Your task to perform on an android device: open app "Contacts" (install if not already installed) Image 0: 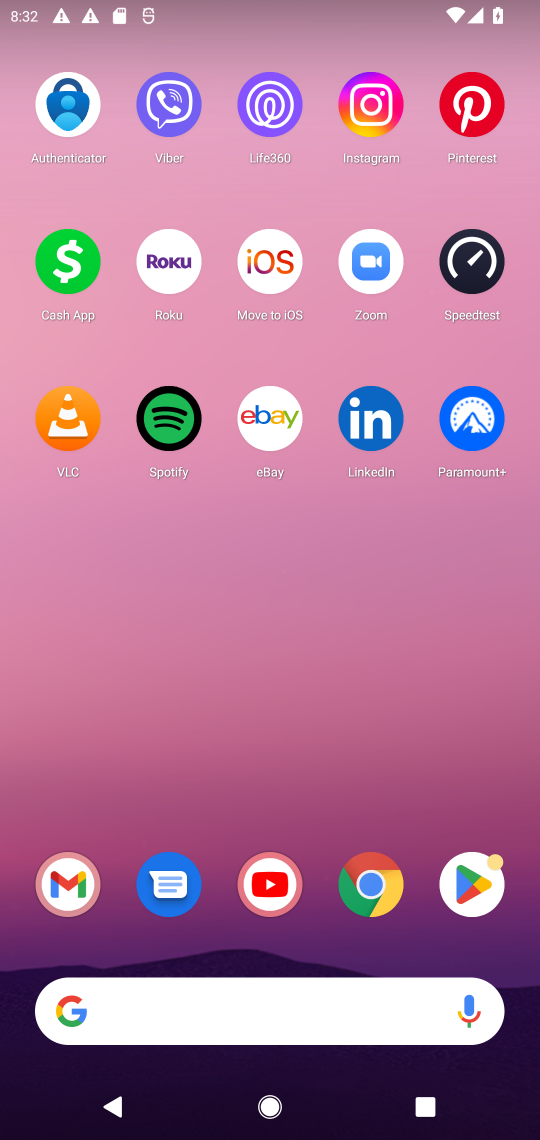
Step 0: press home button
Your task to perform on an android device: open app "Contacts" (install if not already installed) Image 1: 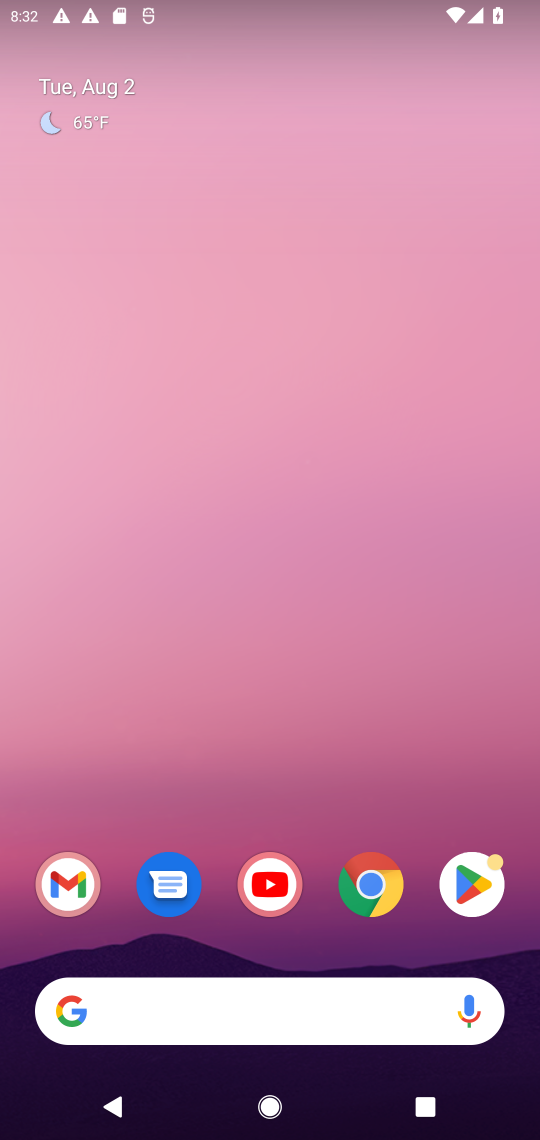
Step 1: click (455, 891)
Your task to perform on an android device: open app "Contacts" (install if not already installed) Image 2: 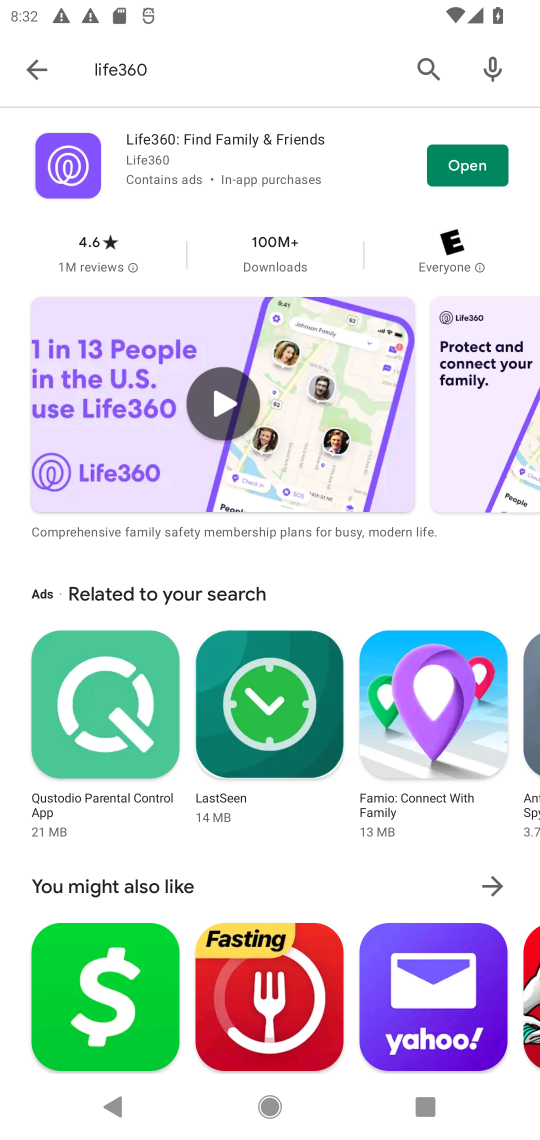
Step 2: click (427, 66)
Your task to perform on an android device: open app "Contacts" (install if not already installed) Image 3: 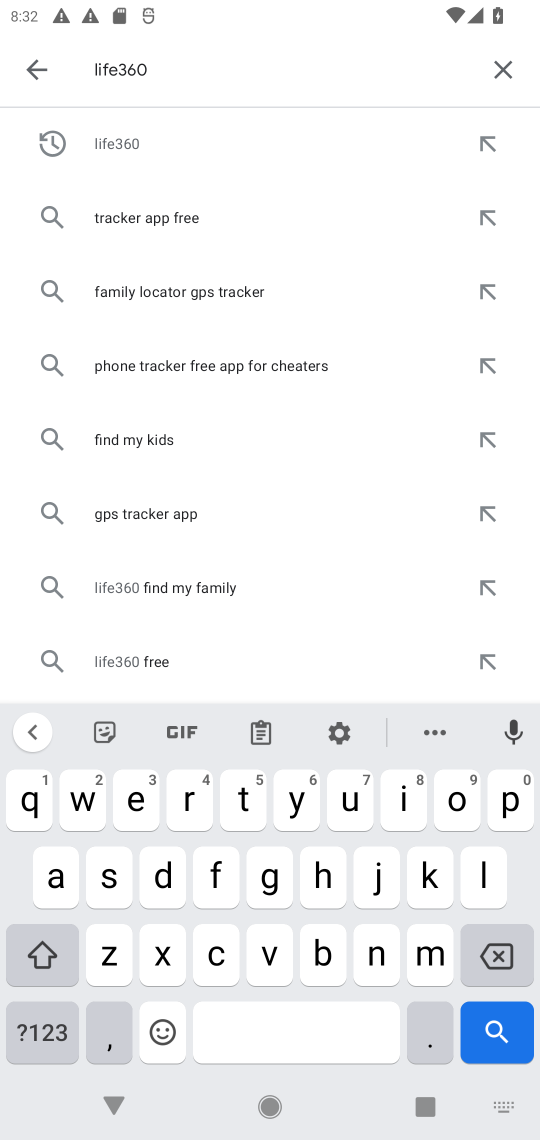
Step 3: click (500, 66)
Your task to perform on an android device: open app "Contacts" (install if not already installed) Image 4: 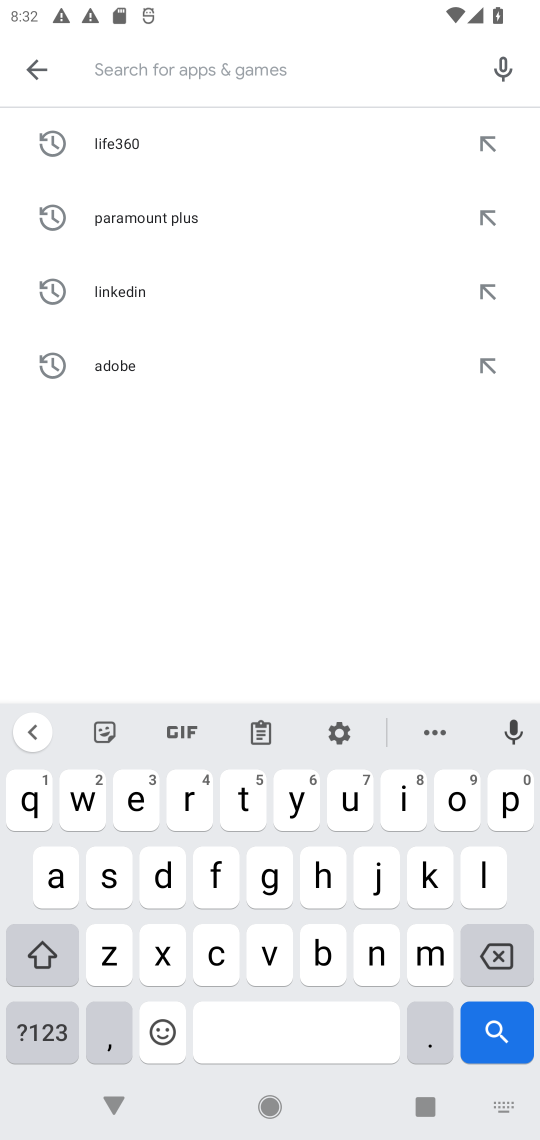
Step 4: click (218, 947)
Your task to perform on an android device: open app "Contacts" (install if not already installed) Image 5: 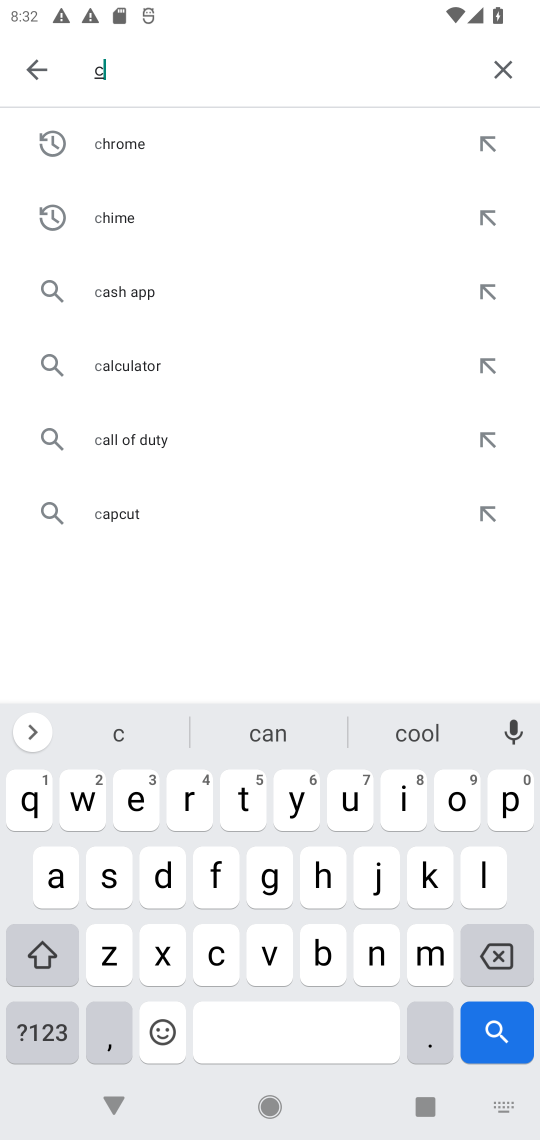
Step 5: click (458, 793)
Your task to perform on an android device: open app "Contacts" (install if not already installed) Image 6: 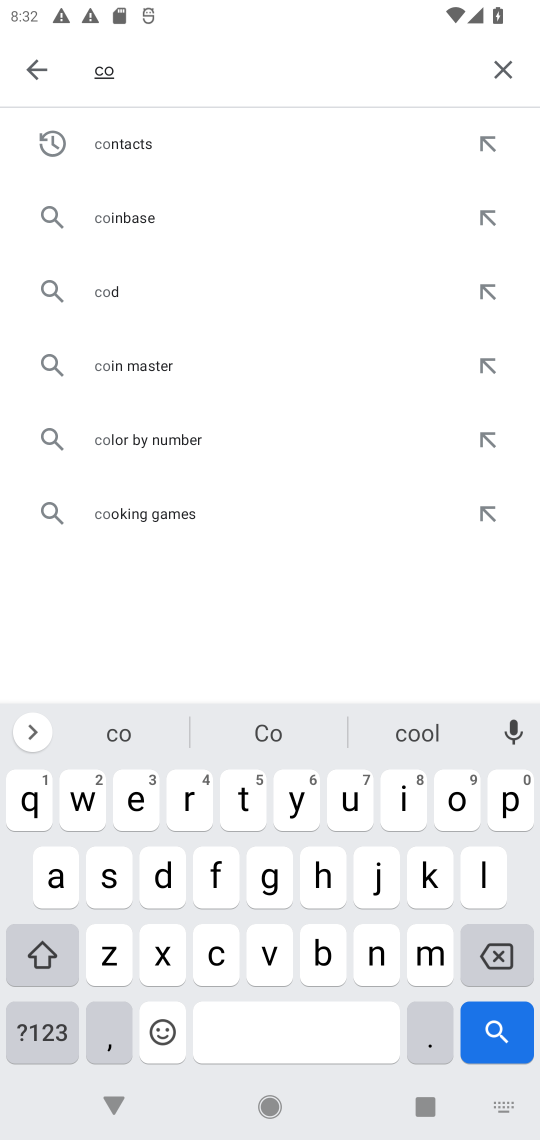
Step 6: click (373, 960)
Your task to perform on an android device: open app "Contacts" (install if not already installed) Image 7: 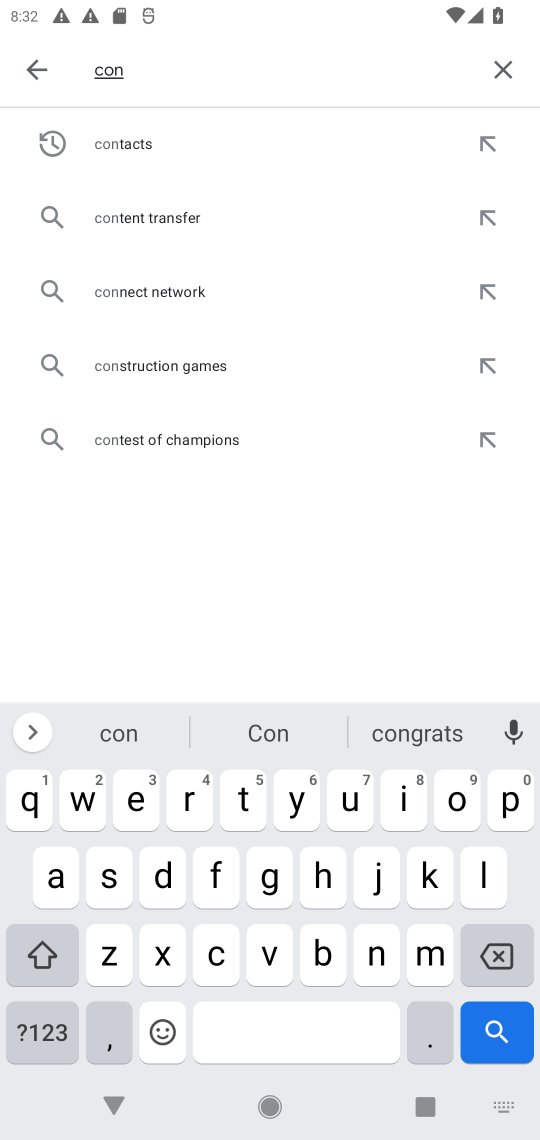
Step 7: click (242, 800)
Your task to perform on an android device: open app "Contacts" (install if not already installed) Image 8: 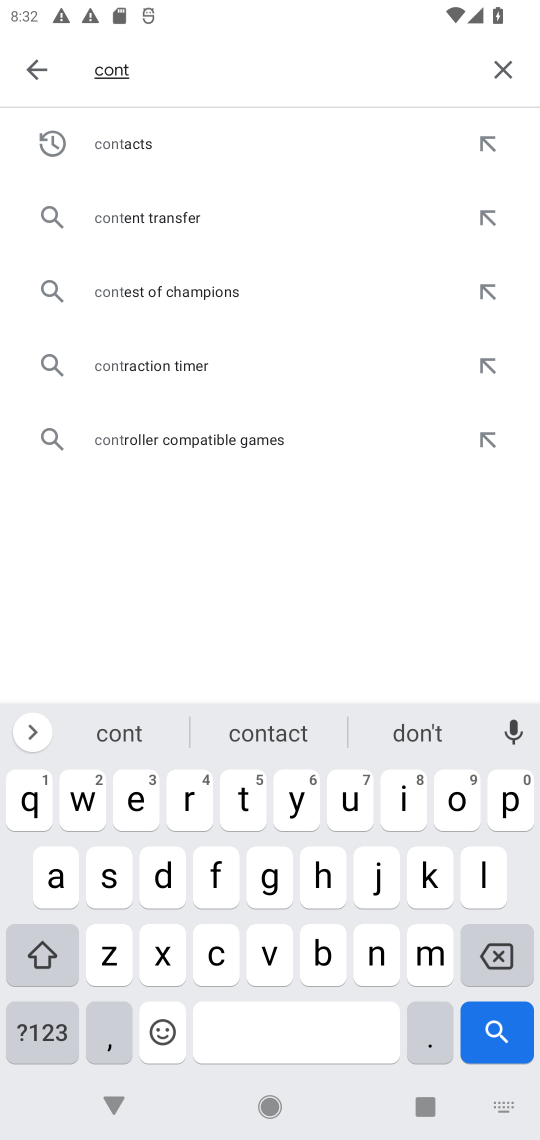
Step 8: click (156, 146)
Your task to perform on an android device: open app "Contacts" (install if not already installed) Image 9: 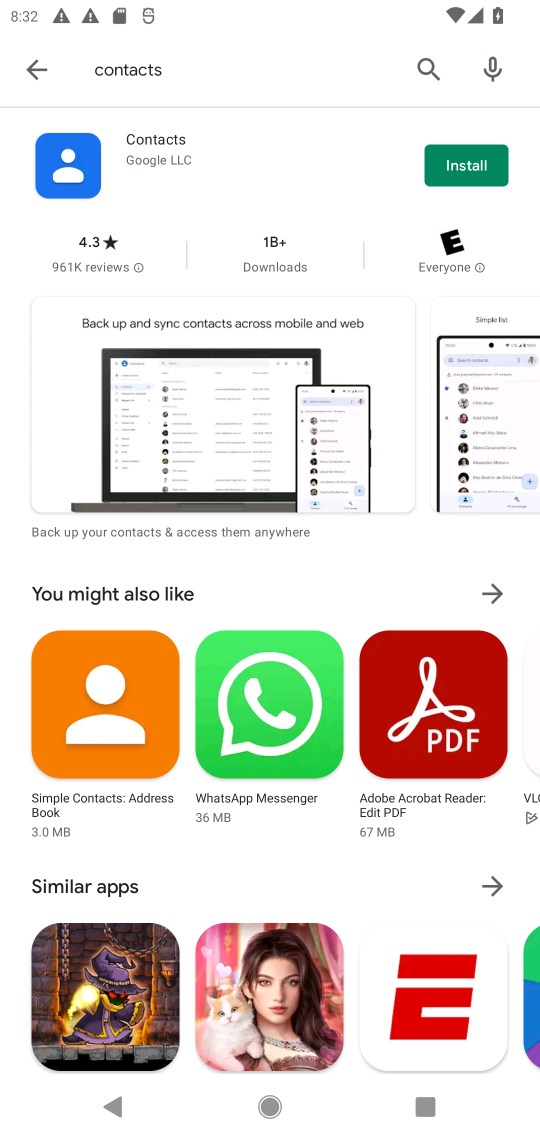
Step 9: click (459, 175)
Your task to perform on an android device: open app "Contacts" (install if not already installed) Image 10: 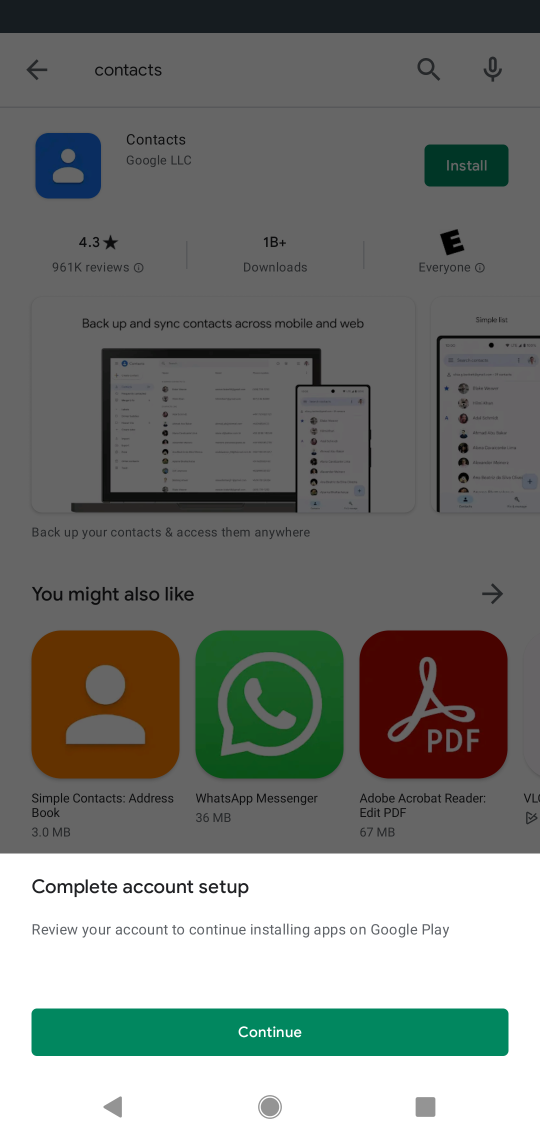
Step 10: click (236, 1043)
Your task to perform on an android device: open app "Contacts" (install if not already installed) Image 11: 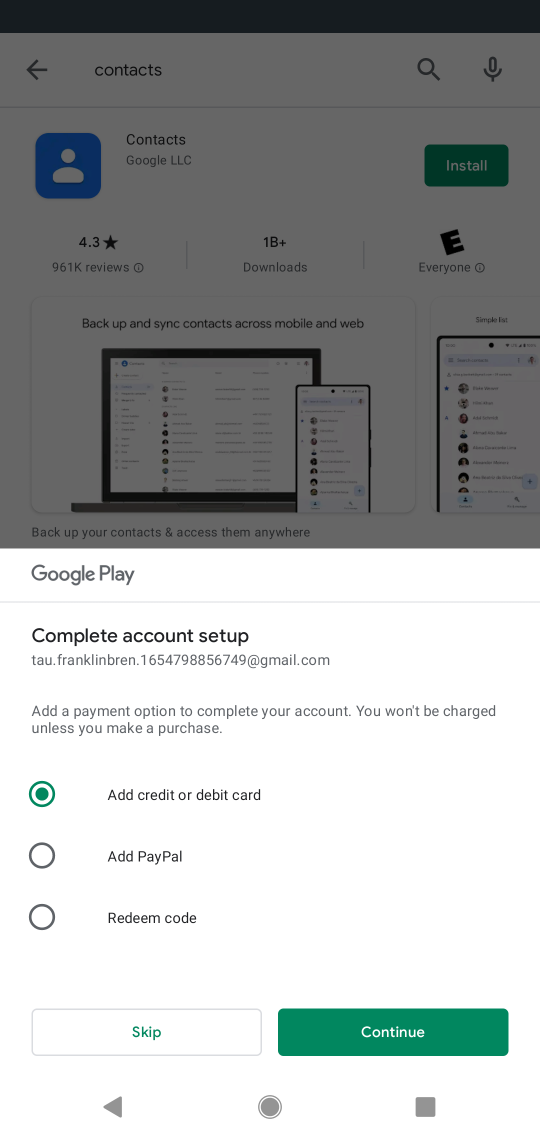
Step 11: click (153, 1025)
Your task to perform on an android device: open app "Contacts" (install if not already installed) Image 12: 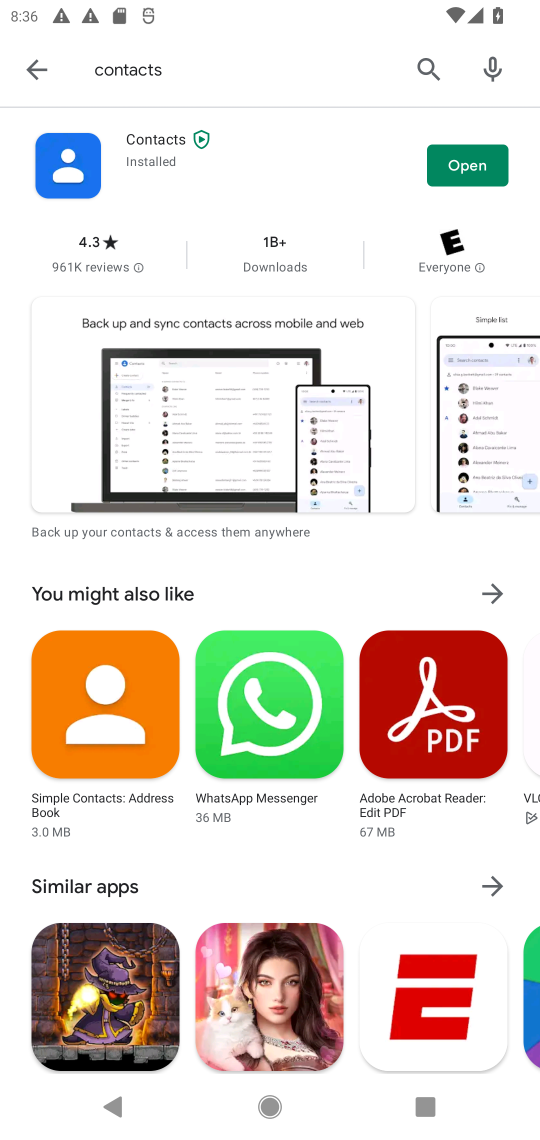
Step 12: click (440, 182)
Your task to perform on an android device: open app "Contacts" (install if not already installed) Image 13: 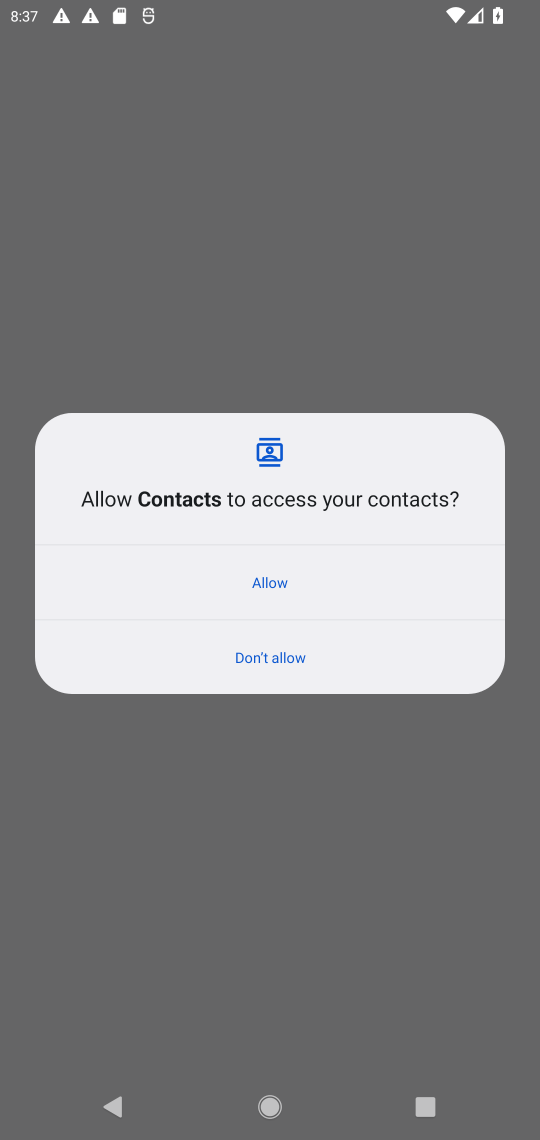
Step 13: task complete